Your task to perform on an android device: Go to internet settings Image 0: 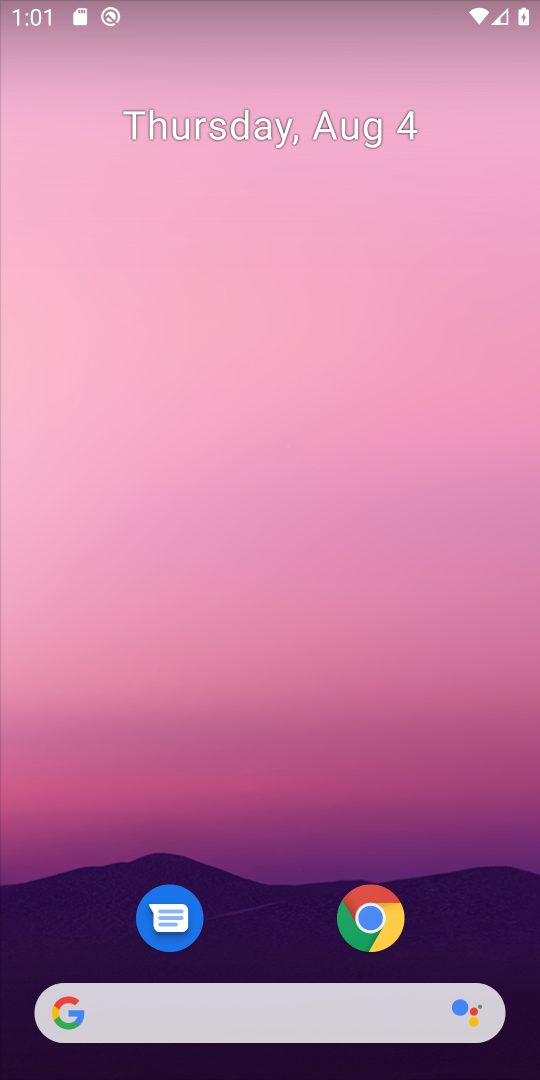
Step 0: drag from (256, 903) to (277, 239)
Your task to perform on an android device: Go to internet settings Image 1: 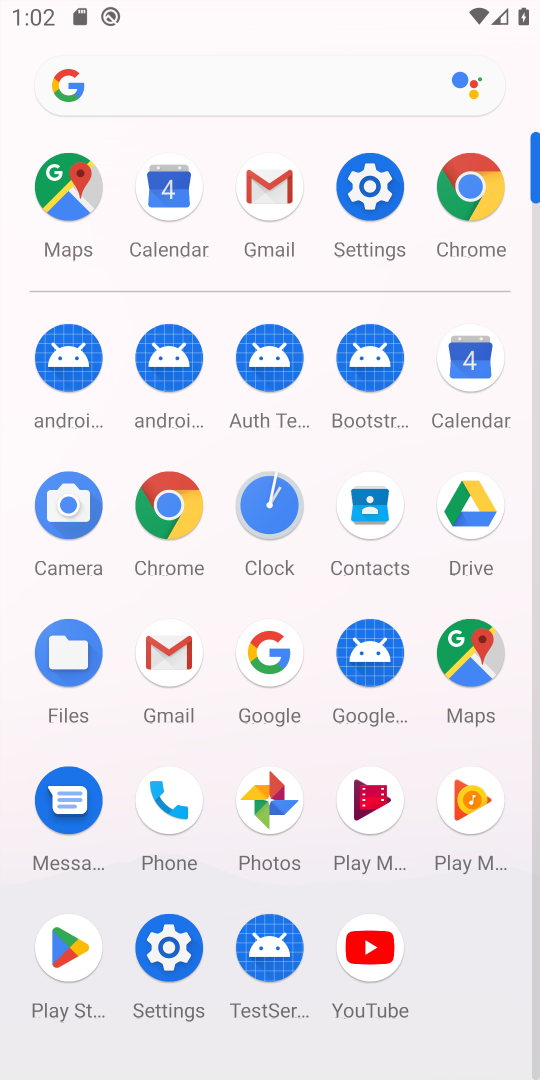
Step 1: click (353, 181)
Your task to perform on an android device: Go to internet settings Image 2: 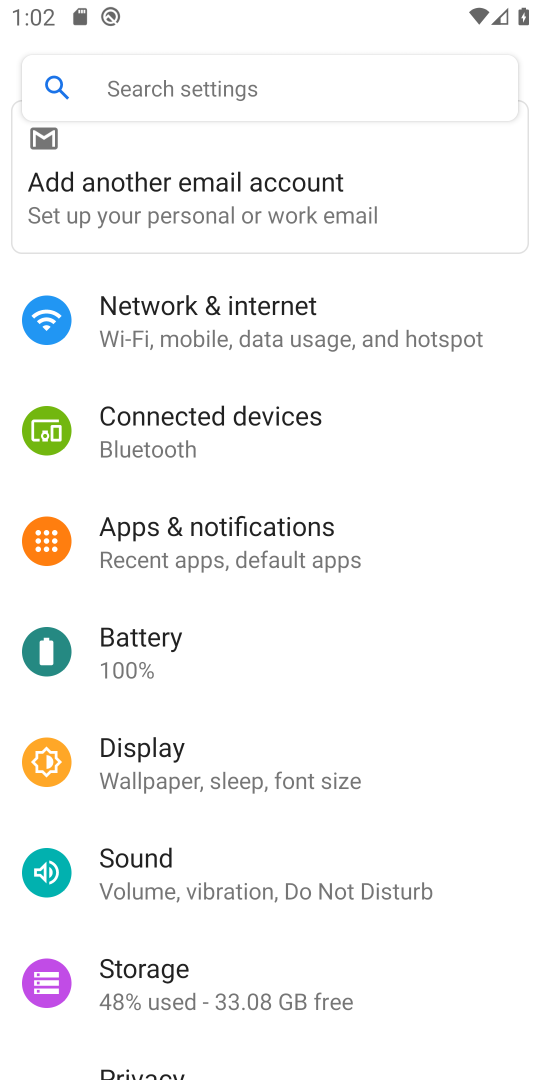
Step 2: click (186, 302)
Your task to perform on an android device: Go to internet settings Image 3: 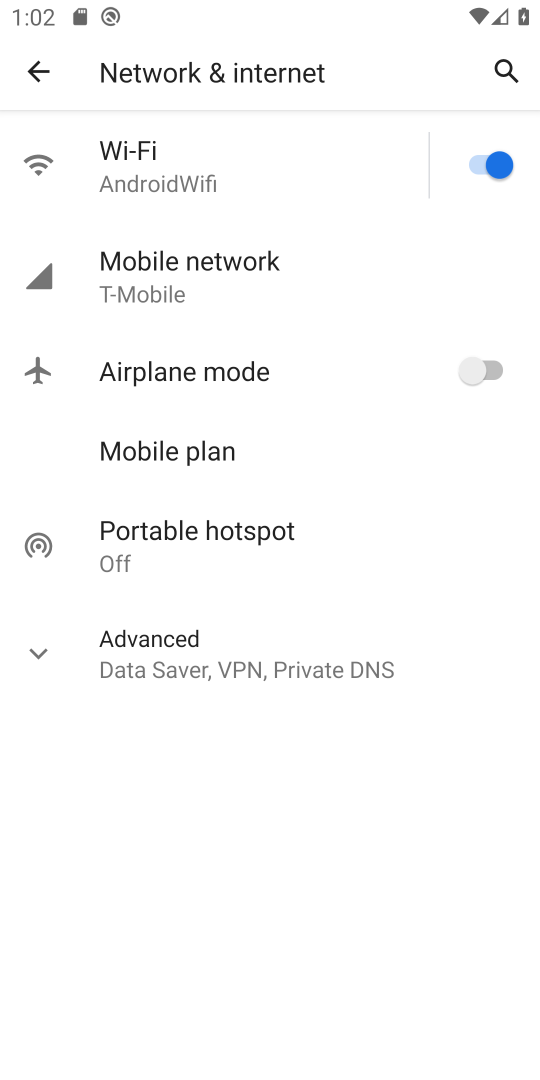
Step 3: task complete